Your task to perform on an android device: open app "Messages" (install if not already installed) and enter user name: "Hersey@inbox.com" and password: "facings" Image 0: 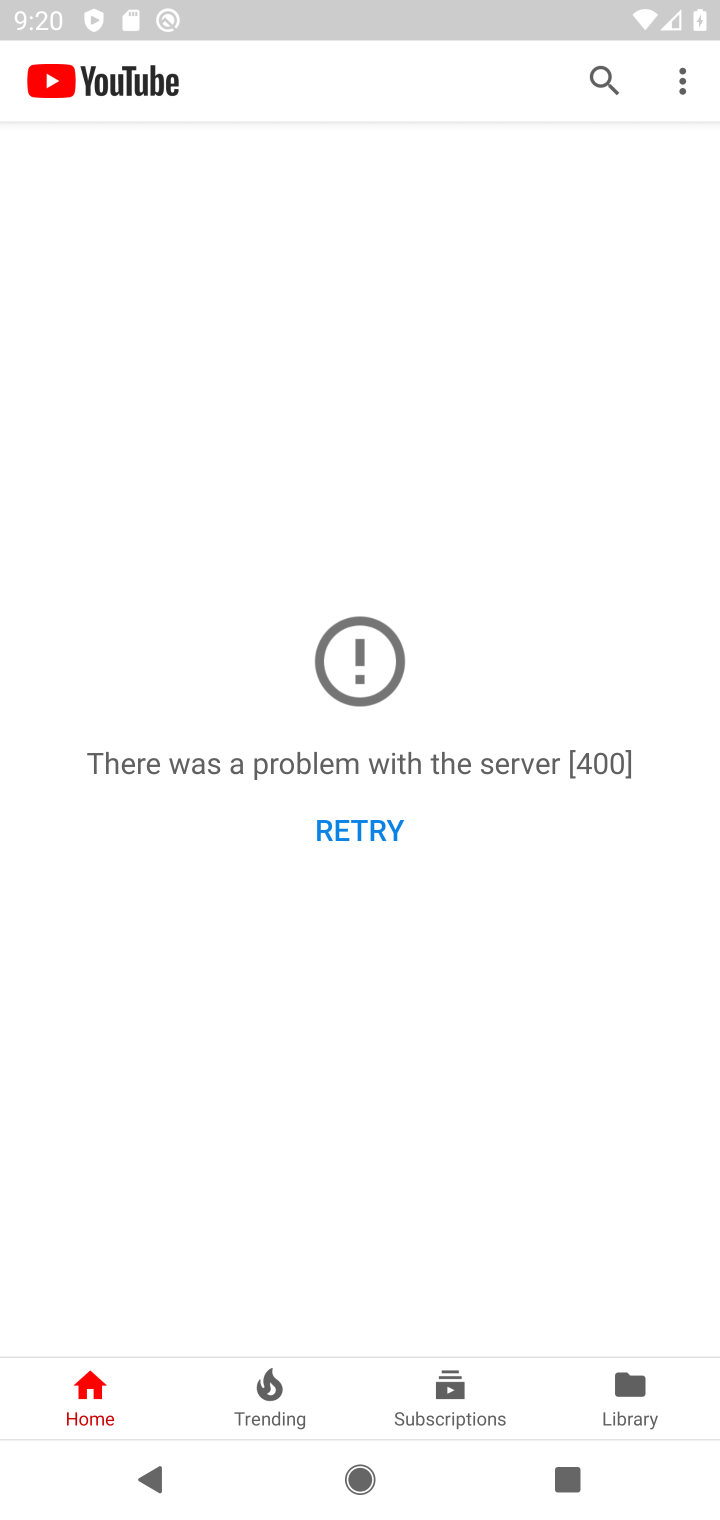
Step 0: press home button
Your task to perform on an android device: open app "Messages" (install if not already installed) and enter user name: "Hersey@inbox.com" and password: "facings" Image 1: 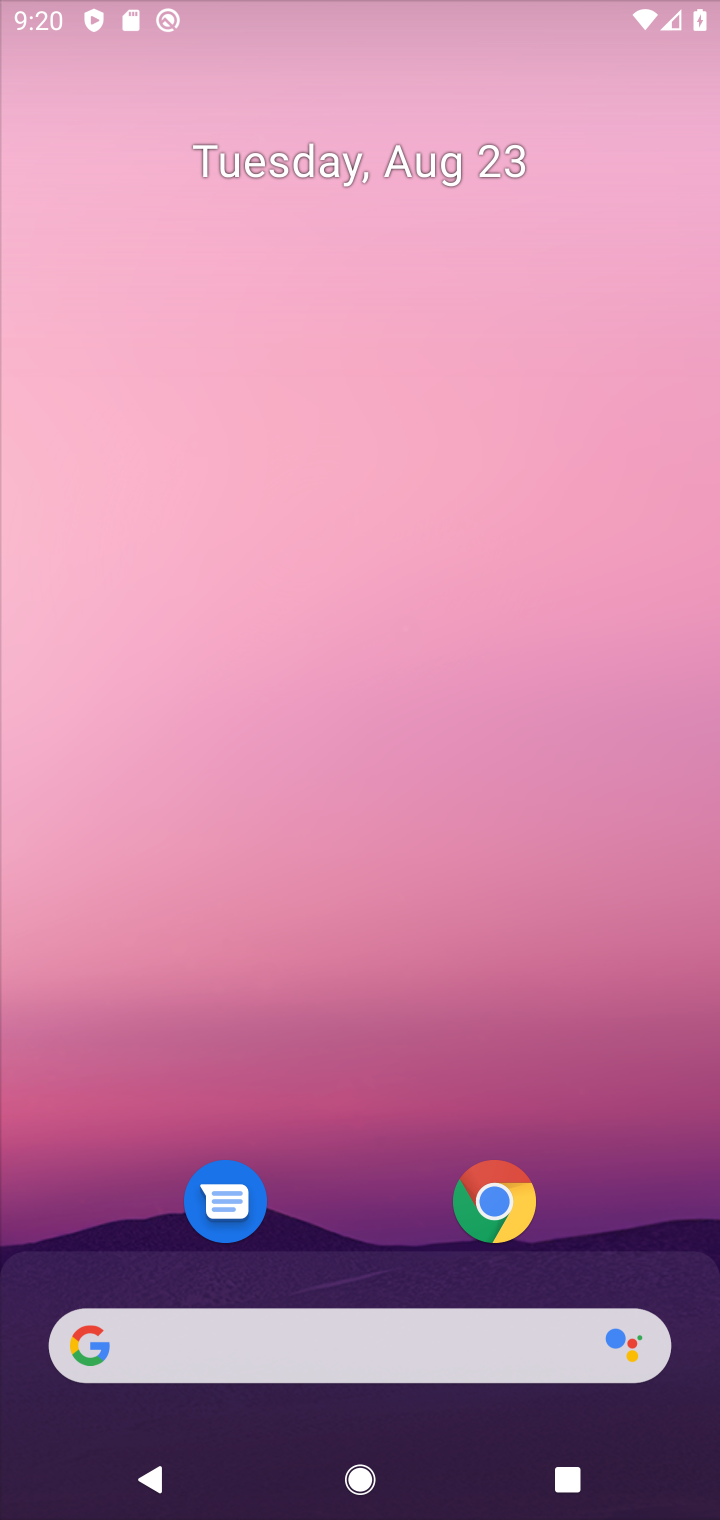
Step 1: drag from (301, 1378) to (490, 363)
Your task to perform on an android device: open app "Messages" (install if not already installed) and enter user name: "Hersey@inbox.com" and password: "facings" Image 2: 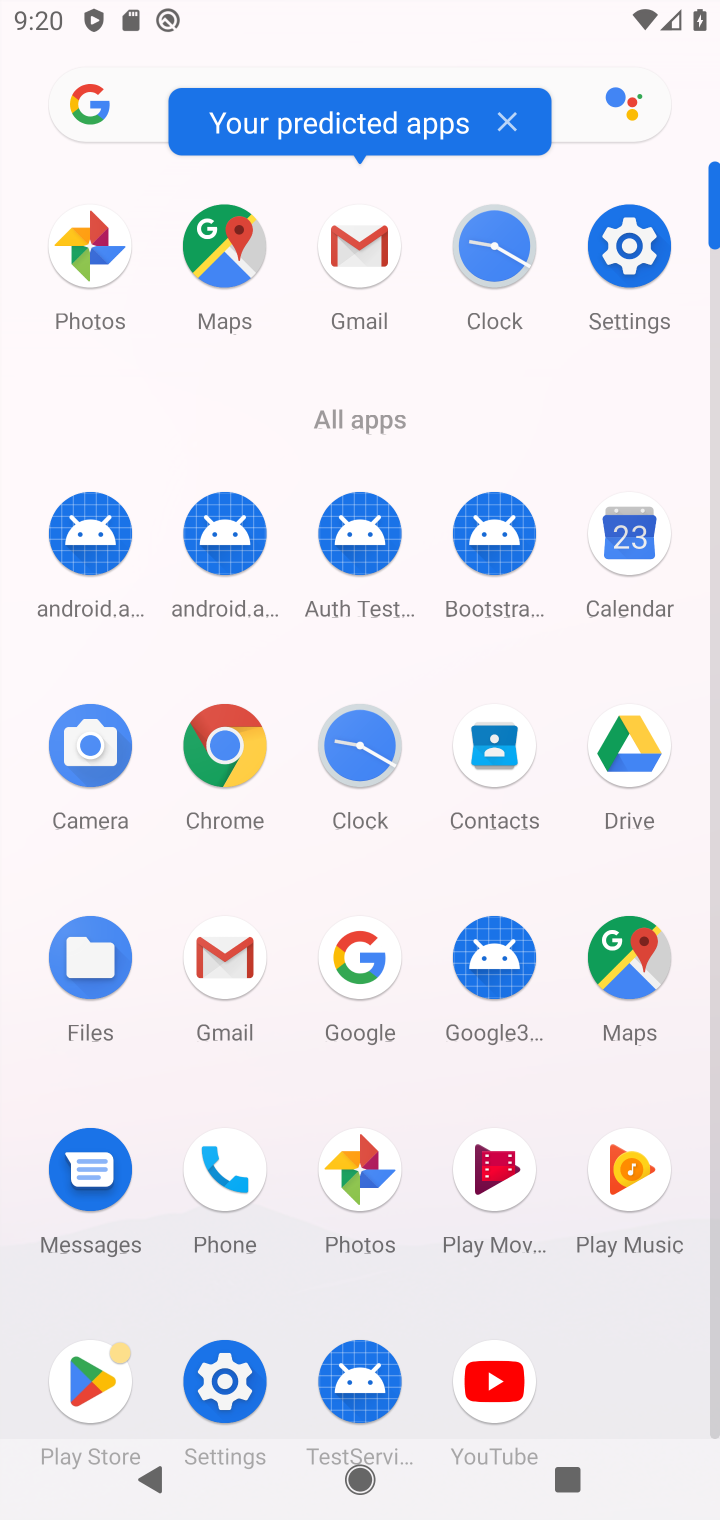
Step 2: click (87, 1363)
Your task to perform on an android device: open app "Messages" (install if not already installed) and enter user name: "Hersey@inbox.com" and password: "facings" Image 3: 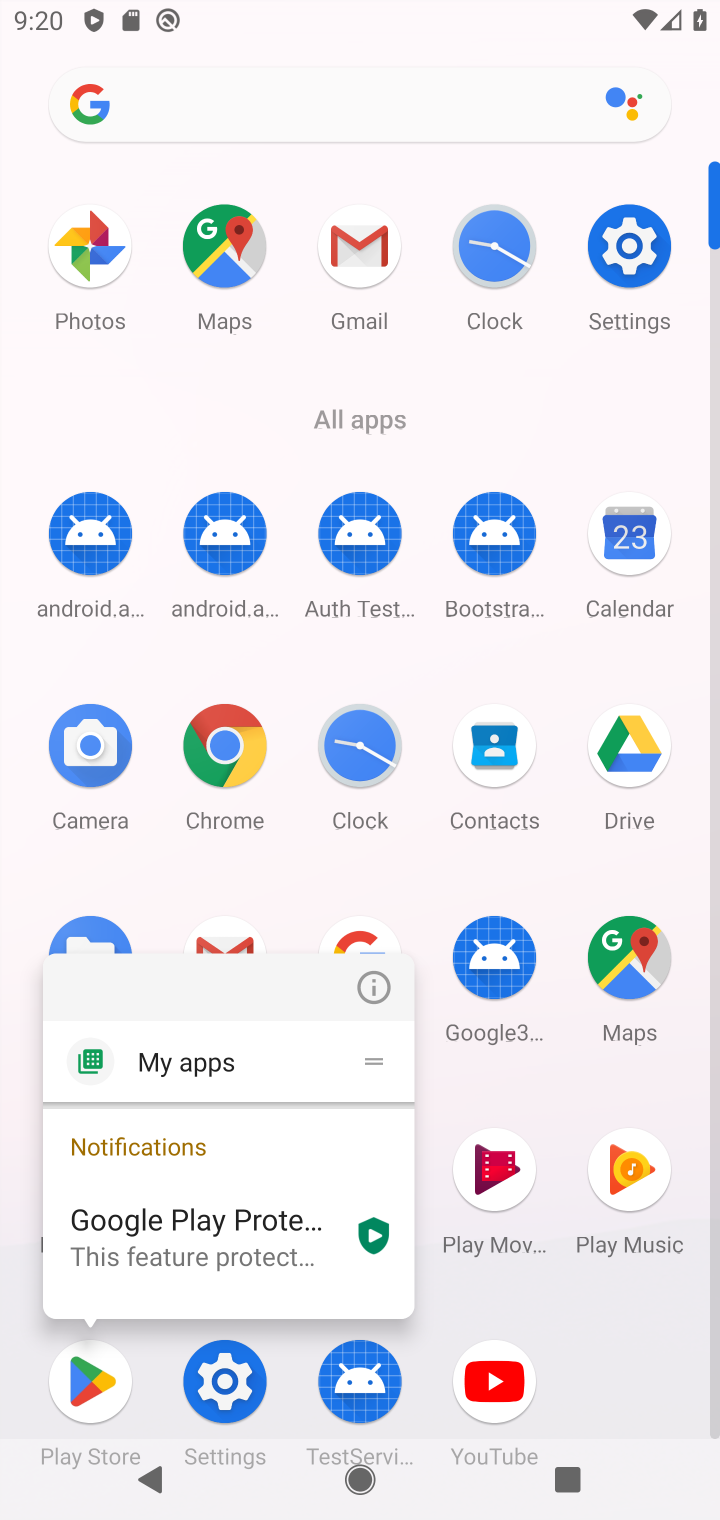
Step 3: click (87, 1363)
Your task to perform on an android device: open app "Messages" (install if not already installed) and enter user name: "Hersey@inbox.com" and password: "facings" Image 4: 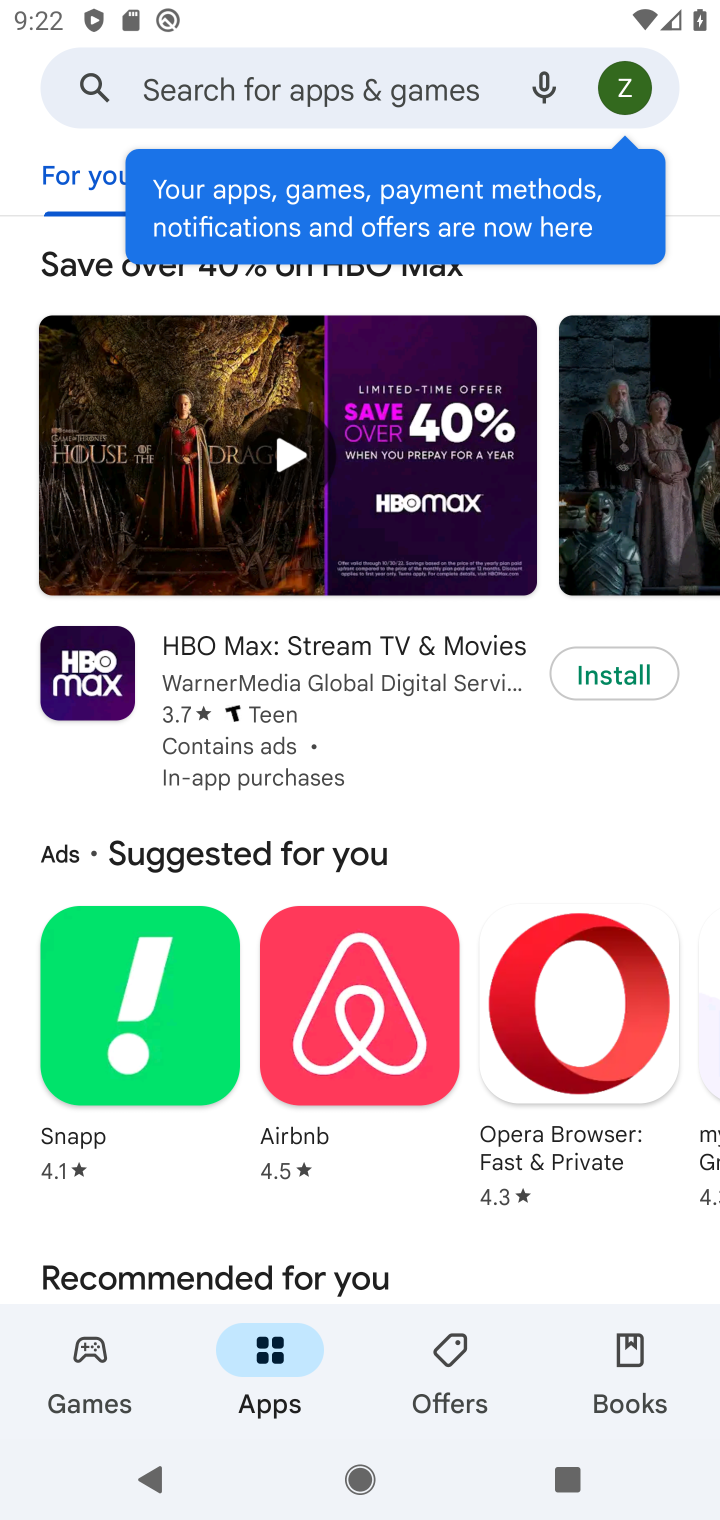
Step 4: click (338, 73)
Your task to perform on an android device: open app "Messages" (install if not already installed) and enter user name: "Hersey@inbox.com" and password: "facings" Image 5: 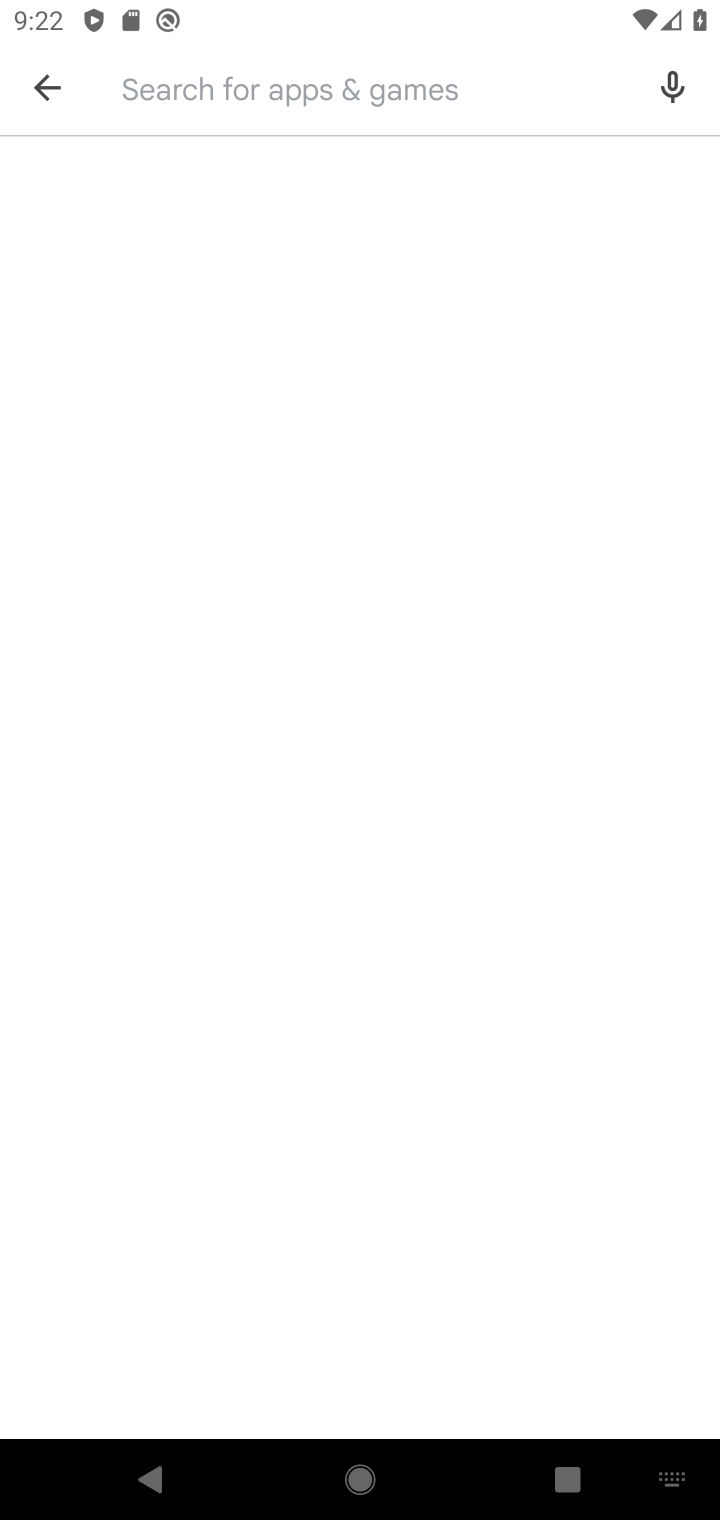
Step 5: type "Messages "
Your task to perform on an android device: open app "Messages" (install if not already installed) and enter user name: "Hersey@inbox.com" and password: "facings" Image 6: 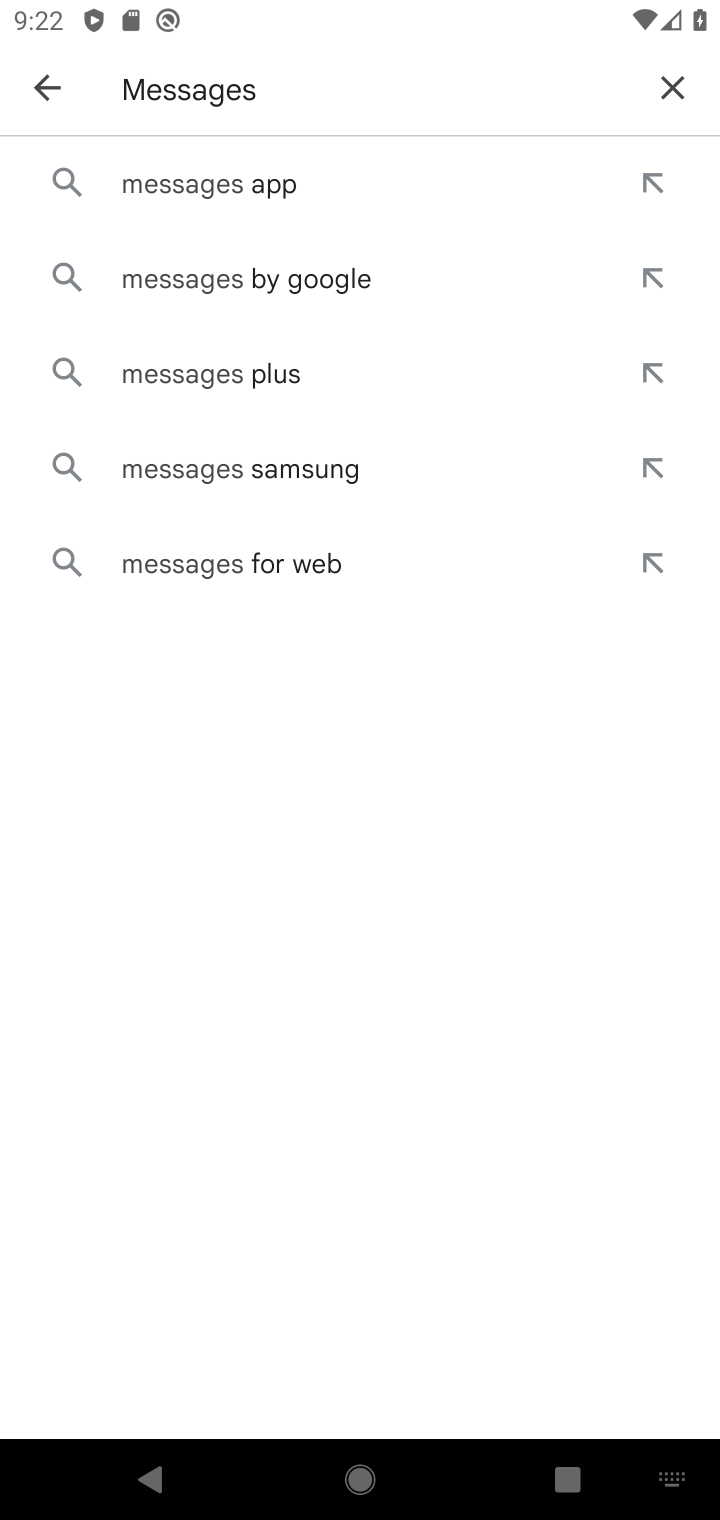
Step 6: click (222, 195)
Your task to perform on an android device: open app "Messages" (install if not already installed) and enter user name: "Hersey@inbox.com" and password: "facings" Image 7: 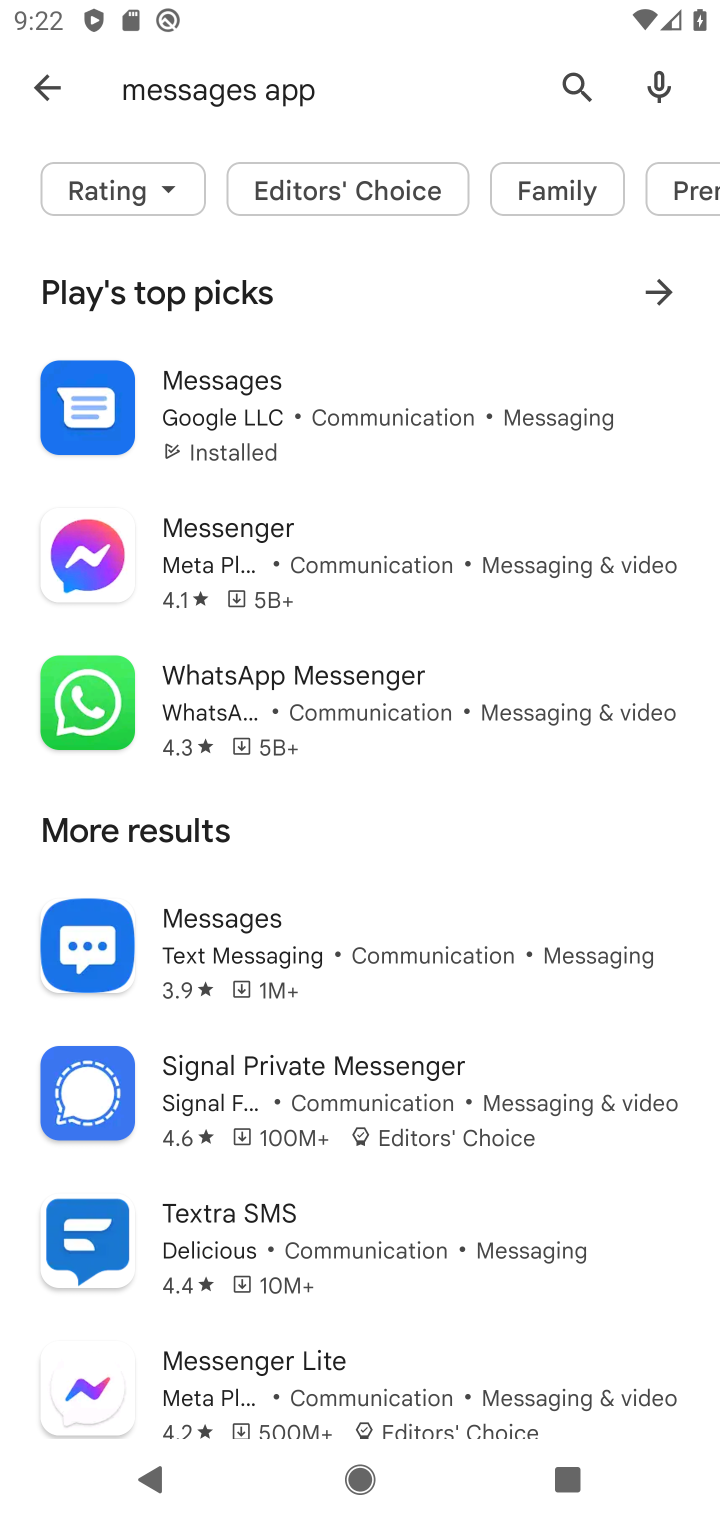
Step 7: click (235, 395)
Your task to perform on an android device: open app "Messages" (install if not already installed) and enter user name: "Hersey@inbox.com" and password: "facings" Image 8: 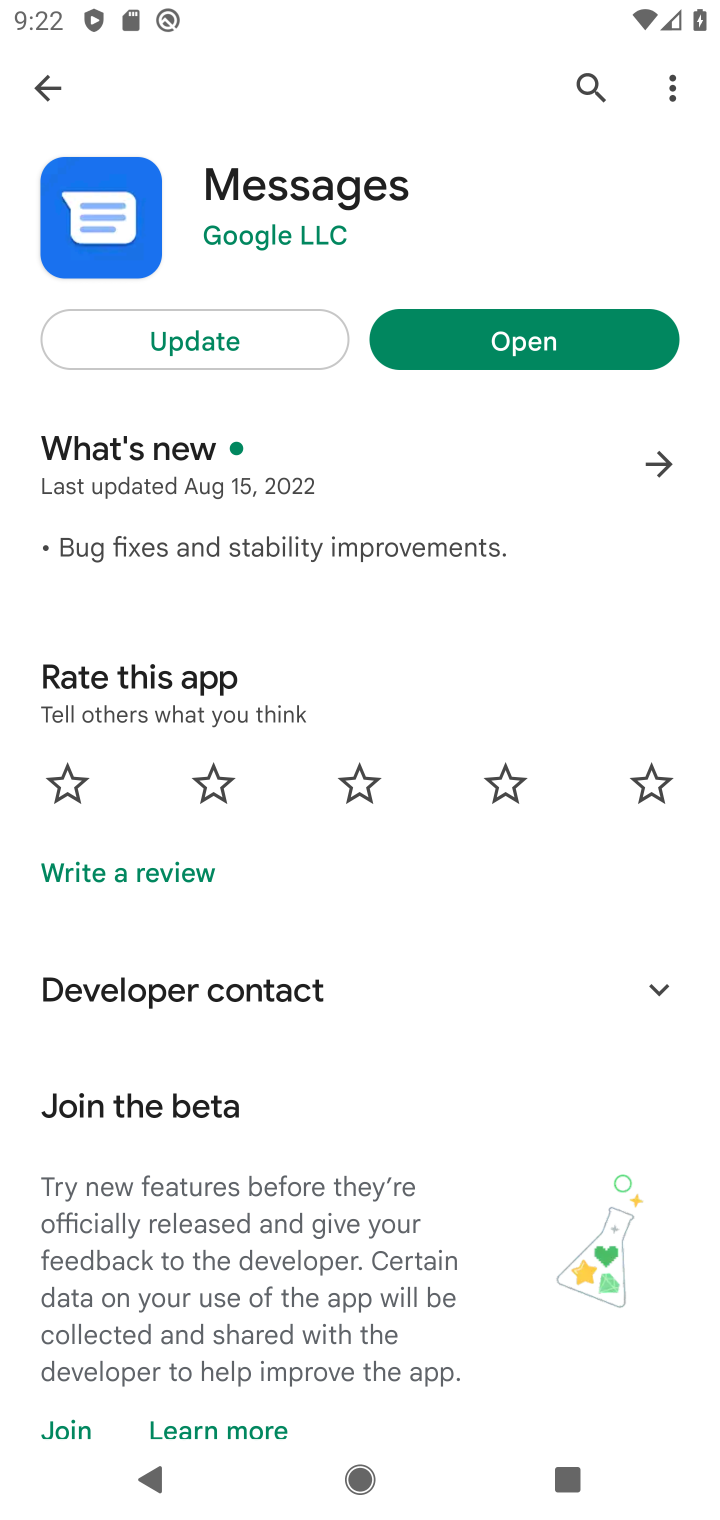
Step 8: click (519, 336)
Your task to perform on an android device: open app "Messages" (install if not already installed) and enter user name: "Hersey@inbox.com" and password: "facings" Image 9: 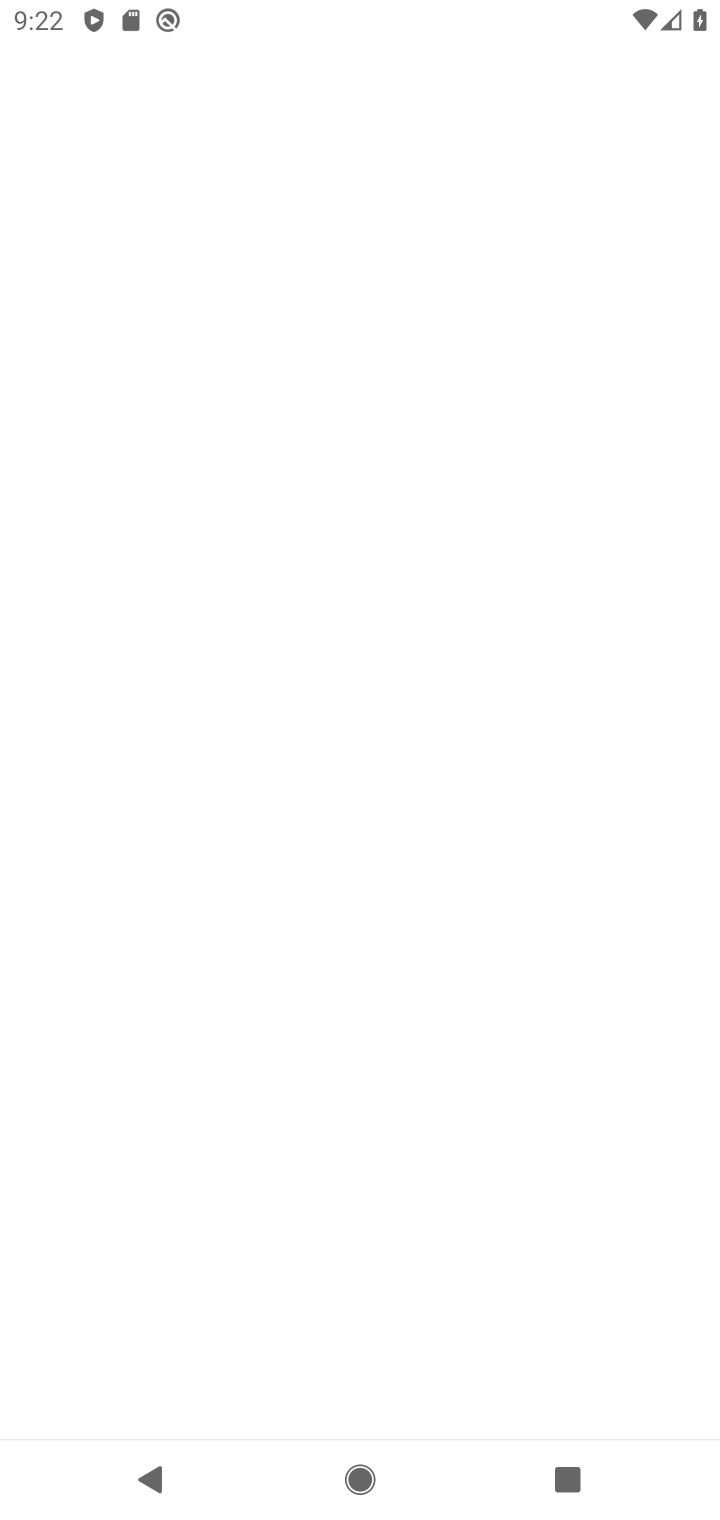
Step 9: task complete